Your task to perform on an android device: Open my contact list Image 0: 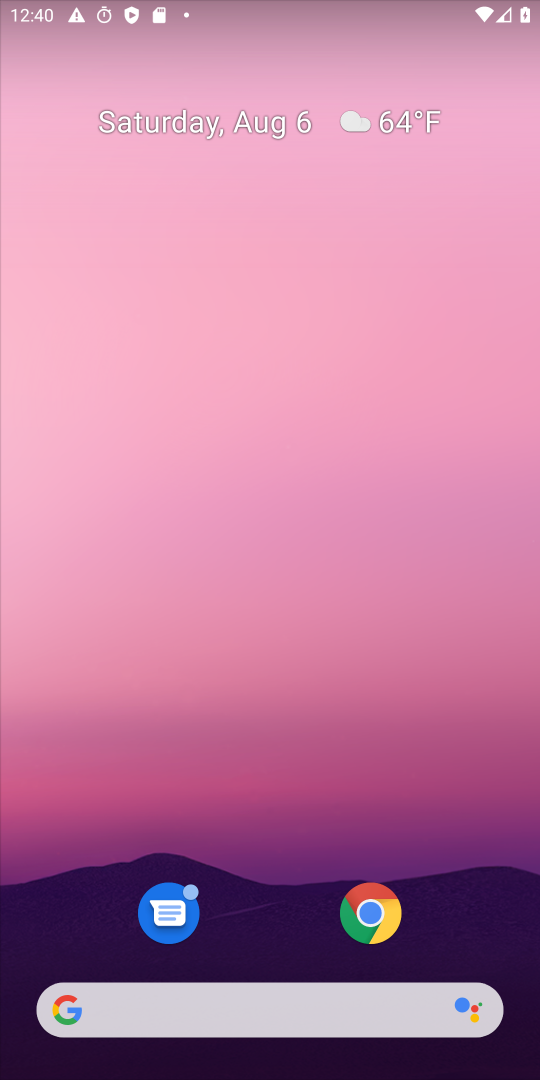
Step 0: press home button
Your task to perform on an android device: Open my contact list Image 1: 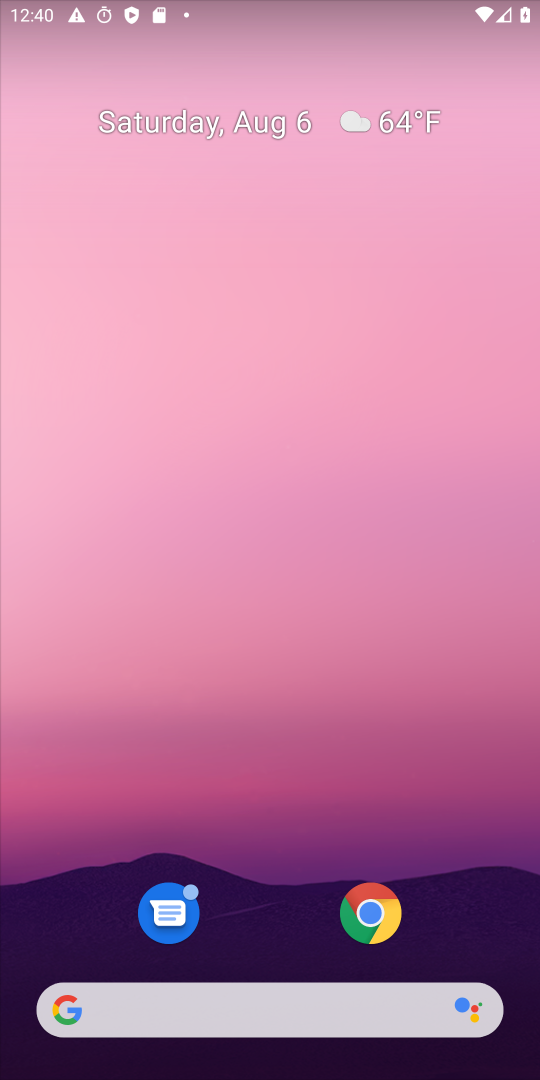
Step 1: drag from (473, 940) to (497, 329)
Your task to perform on an android device: Open my contact list Image 2: 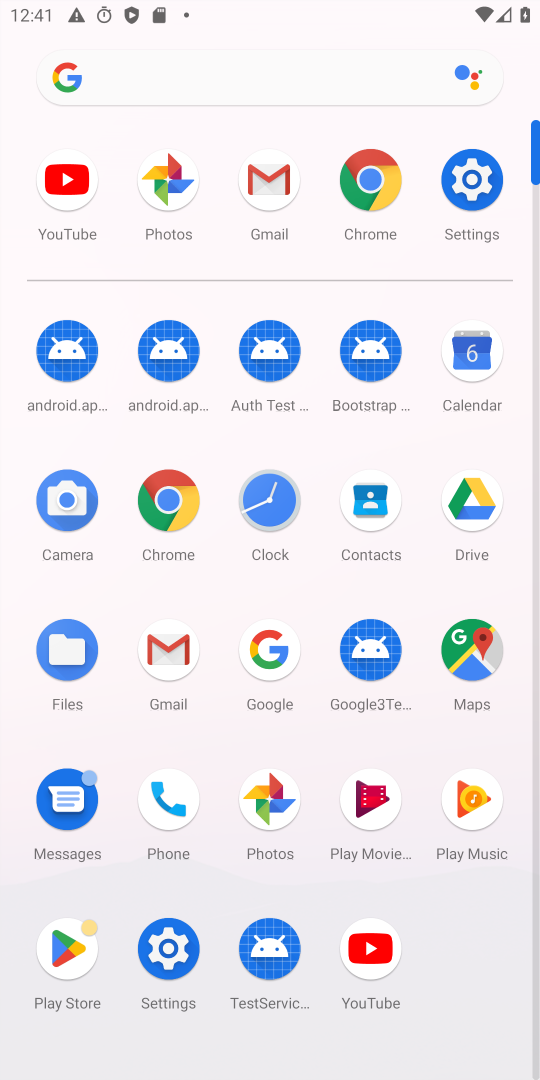
Step 2: click (372, 503)
Your task to perform on an android device: Open my contact list Image 3: 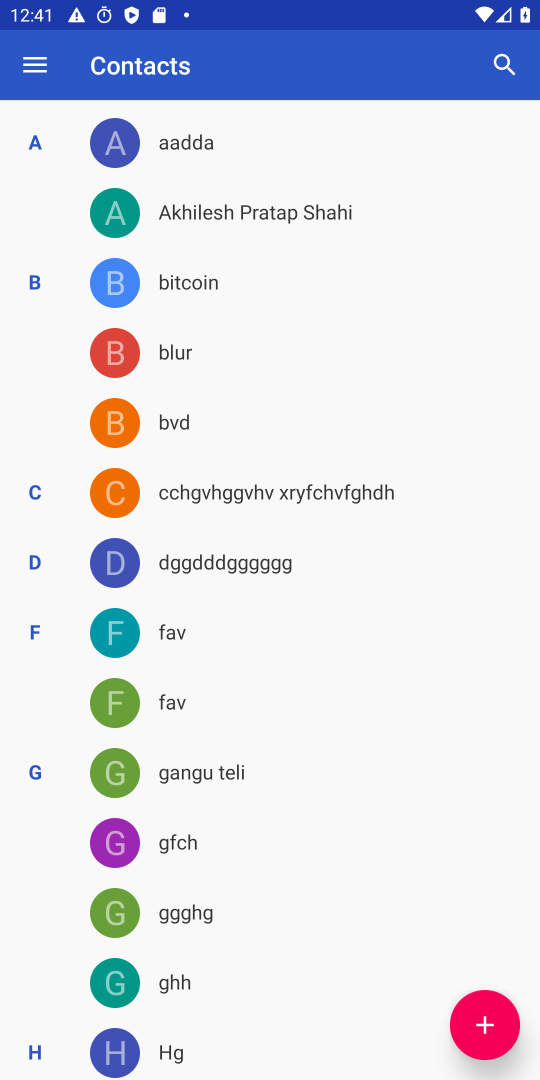
Step 3: task complete